Your task to perform on an android device: Search for Italian restaurants on Maps Image 0: 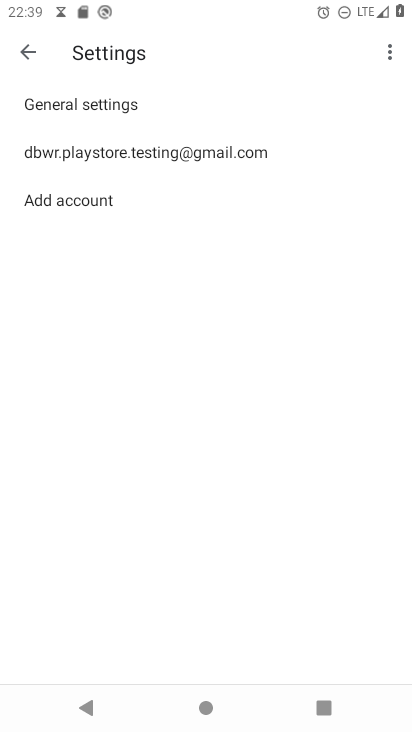
Step 0: press home button
Your task to perform on an android device: Search for Italian restaurants on Maps Image 1: 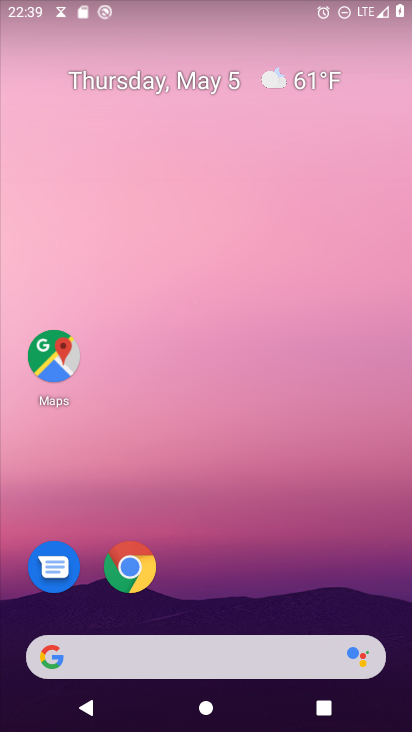
Step 1: drag from (200, 723) to (133, 237)
Your task to perform on an android device: Search for Italian restaurants on Maps Image 2: 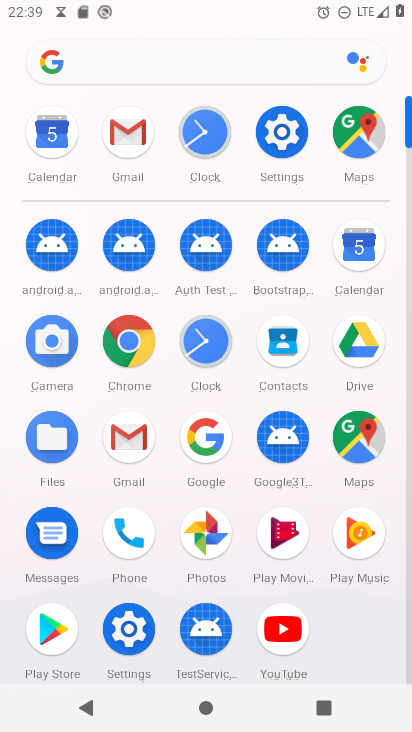
Step 2: click (360, 430)
Your task to perform on an android device: Search for Italian restaurants on Maps Image 3: 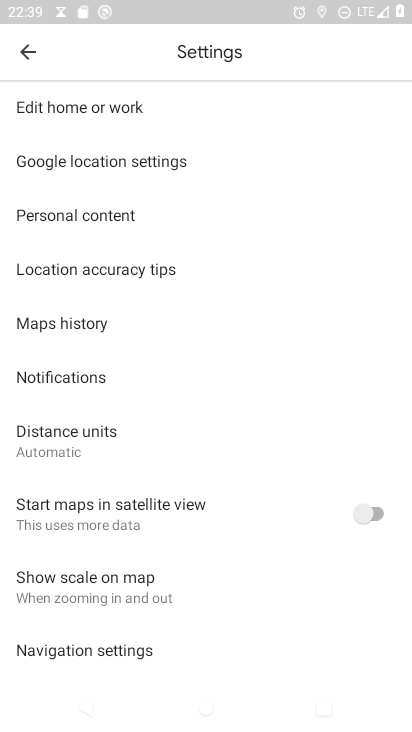
Step 3: click (23, 47)
Your task to perform on an android device: Search for Italian restaurants on Maps Image 4: 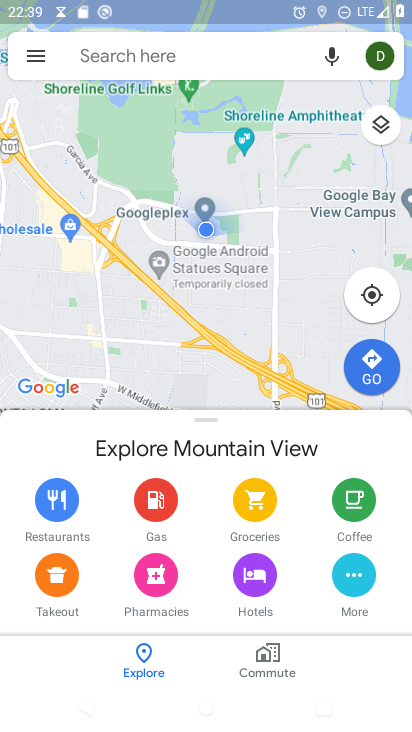
Step 4: click (170, 60)
Your task to perform on an android device: Search for Italian restaurants on Maps Image 5: 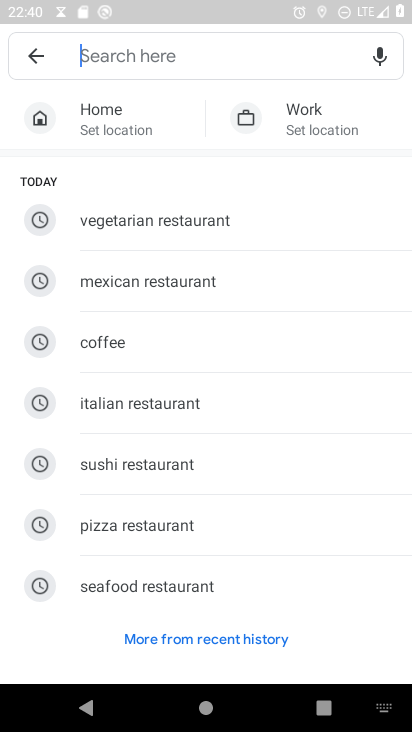
Step 5: type "italian restaurants"
Your task to perform on an android device: Search for Italian restaurants on Maps Image 6: 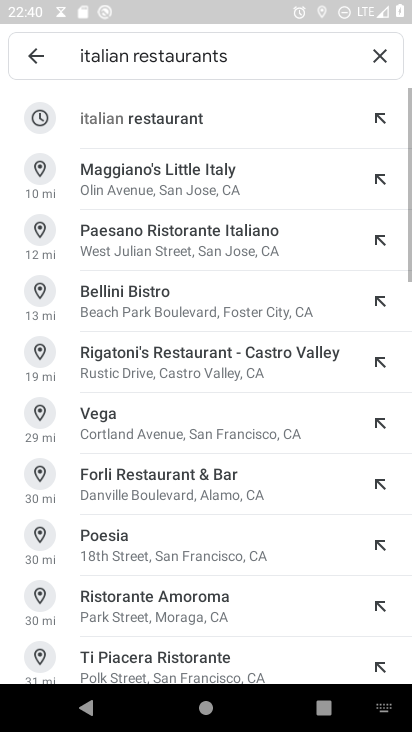
Step 6: click (147, 121)
Your task to perform on an android device: Search for Italian restaurants on Maps Image 7: 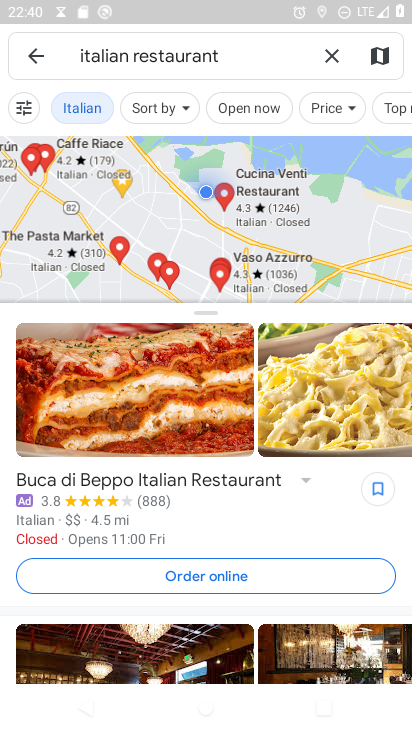
Step 7: task complete